Your task to perform on an android device: turn on bluetooth scan Image 0: 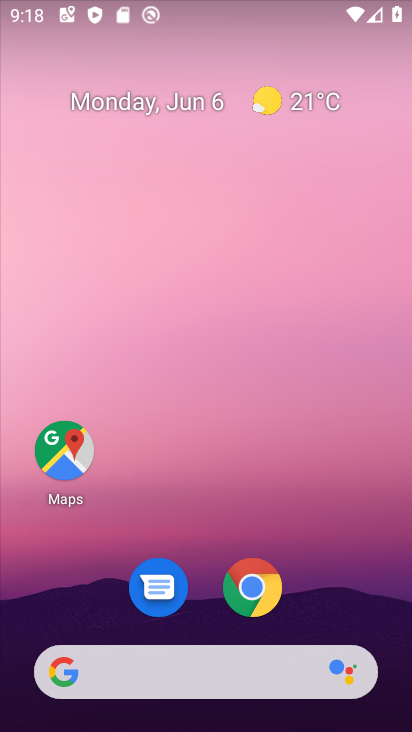
Step 0: drag from (211, 287) to (234, 28)
Your task to perform on an android device: turn on bluetooth scan Image 1: 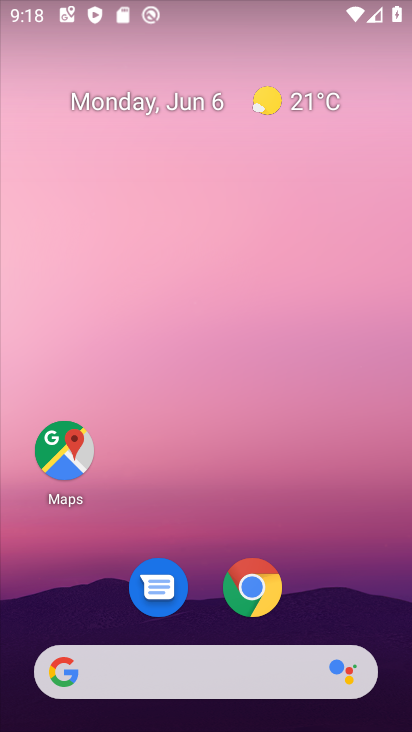
Step 1: drag from (230, 717) to (328, 10)
Your task to perform on an android device: turn on bluetooth scan Image 2: 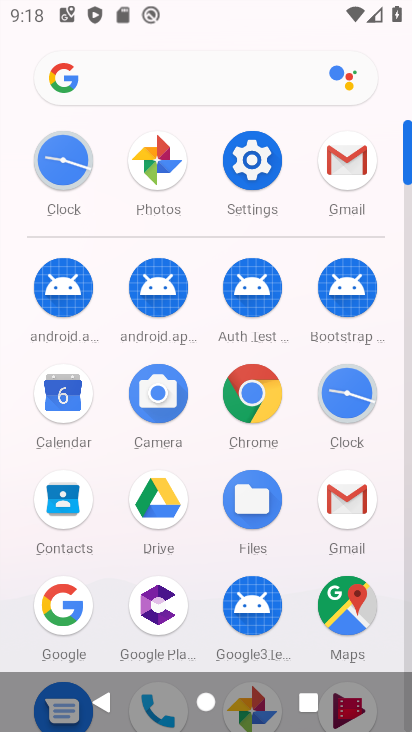
Step 2: click (258, 176)
Your task to perform on an android device: turn on bluetooth scan Image 3: 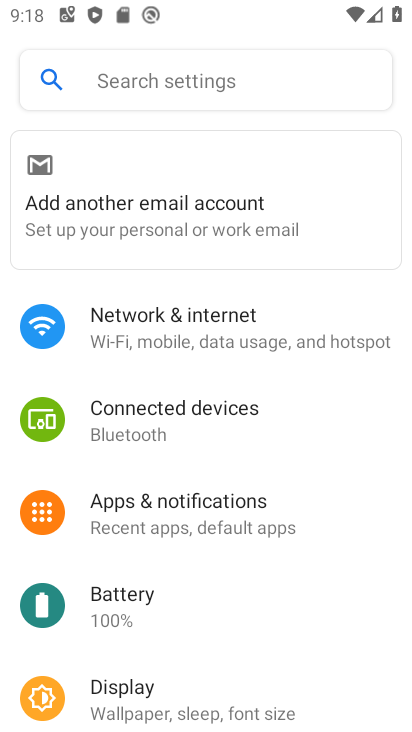
Step 3: drag from (184, 665) to (194, 20)
Your task to perform on an android device: turn on bluetooth scan Image 4: 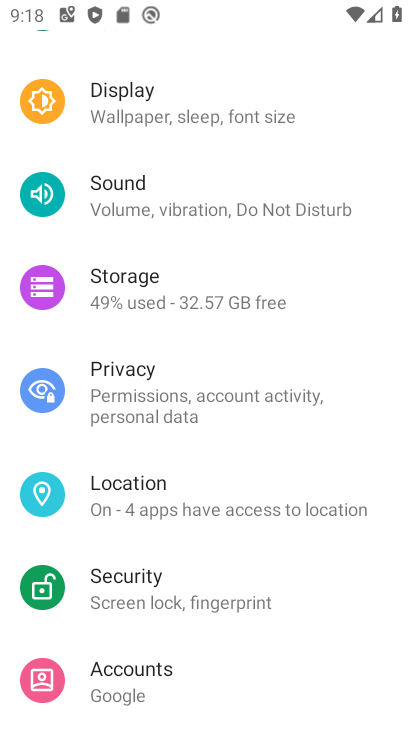
Step 4: click (199, 499)
Your task to perform on an android device: turn on bluetooth scan Image 5: 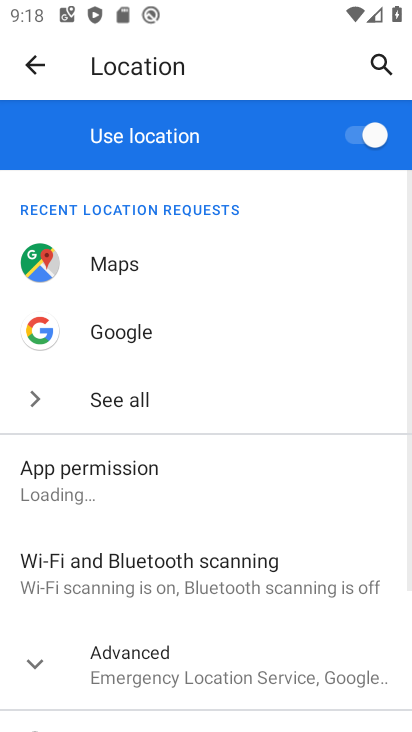
Step 5: click (181, 596)
Your task to perform on an android device: turn on bluetooth scan Image 6: 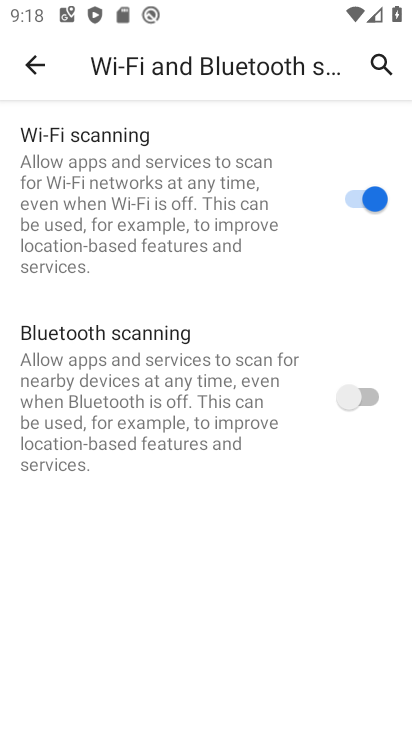
Step 6: click (368, 400)
Your task to perform on an android device: turn on bluetooth scan Image 7: 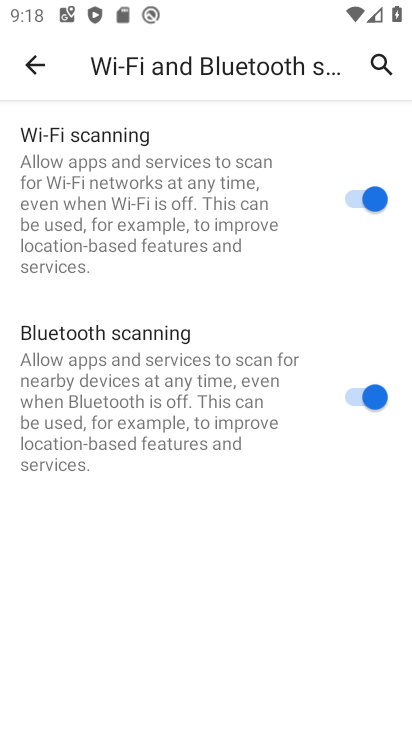
Step 7: task complete